Your task to perform on an android device: open sync settings in chrome Image 0: 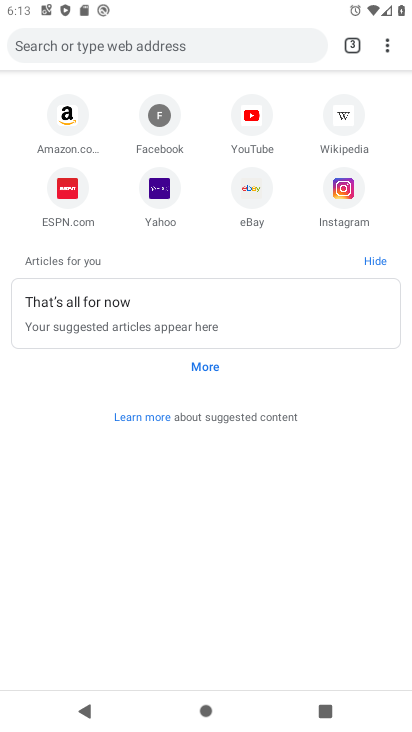
Step 0: click (399, 56)
Your task to perform on an android device: open sync settings in chrome Image 1: 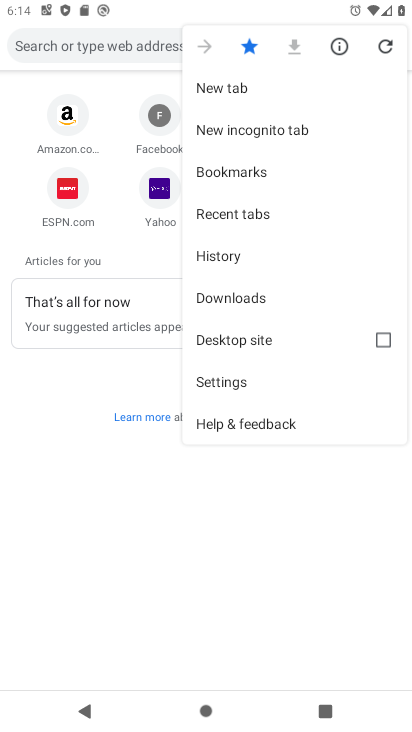
Step 1: click (246, 368)
Your task to perform on an android device: open sync settings in chrome Image 2: 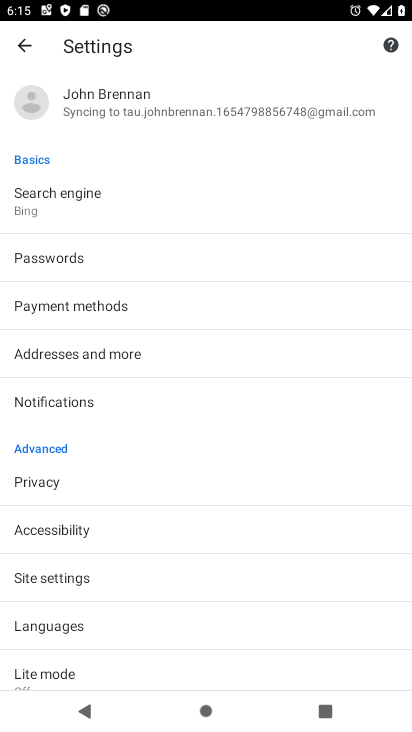
Step 2: click (179, 101)
Your task to perform on an android device: open sync settings in chrome Image 3: 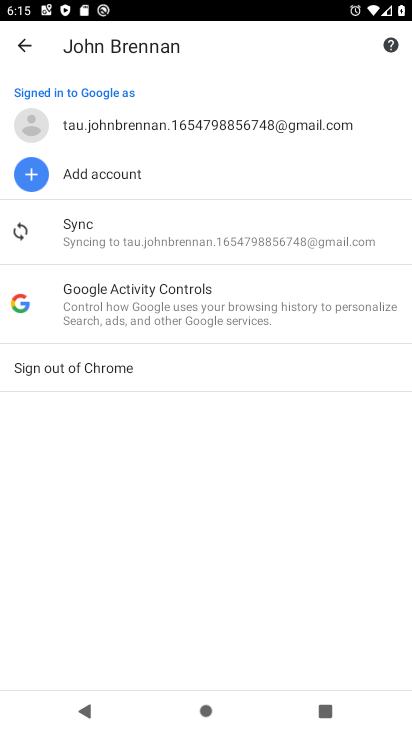
Step 3: click (119, 228)
Your task to perform on an android device: open sync settings in chrome Image 4: 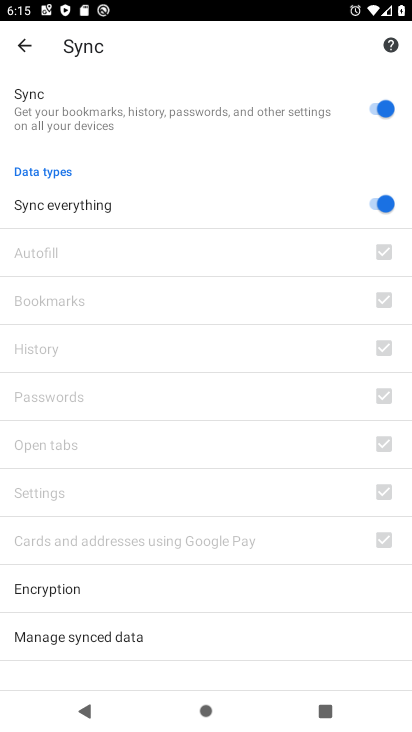
Step 4: task complete